Your task to perform on an android device: What's on my calendar today? Image 0: 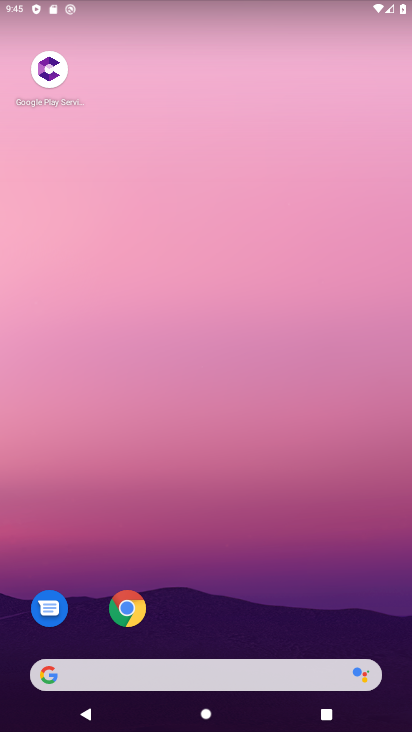
Step 0: drag from (185, 643) to (183, 227)
Your task to perform on an android device: What's on my calendar today? Image 1: 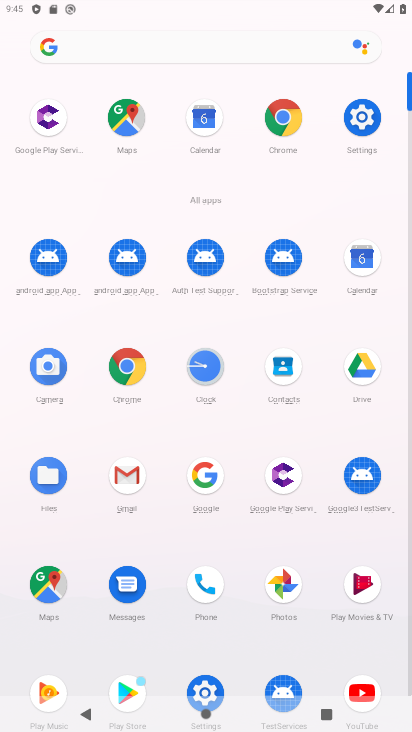
Step 1: click (364, 265)
Your task to perform on an android device: What's on my calendar today? Image 2: 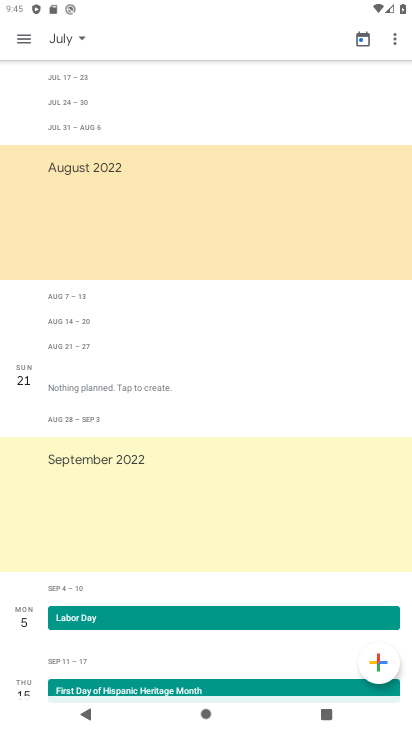
Step 2: click (59, 43)
Your task to perform on an android device: What's on my calendar today? Image 3: 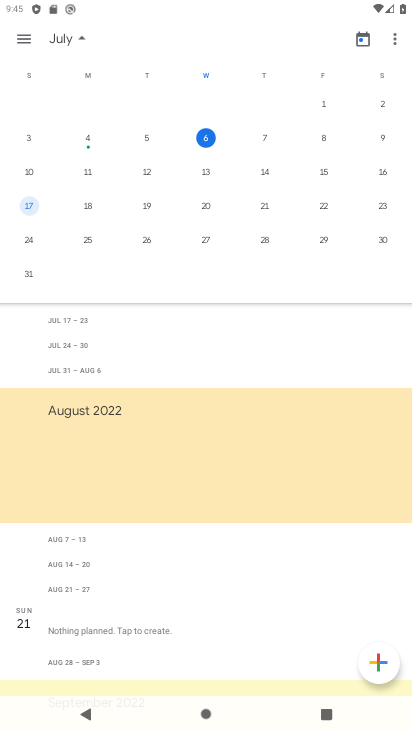
Step 3: click (211, 135)
Your task to perform on an android device: What's on my calendar today? Image 4: 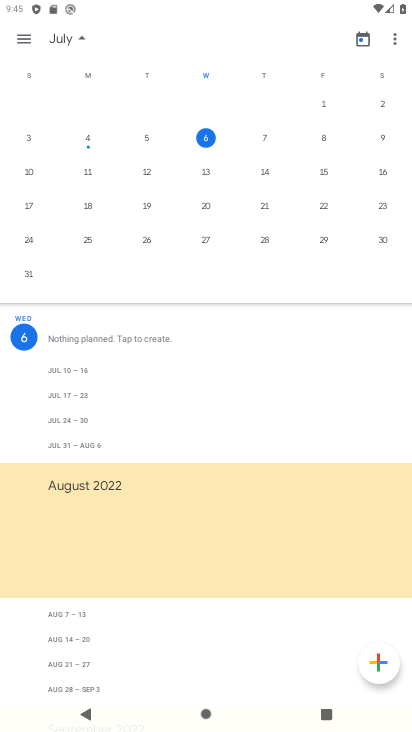
Step 4: task complete